Your task to perform on an android device: open chrome and create a bookmark for the current page Image 0: 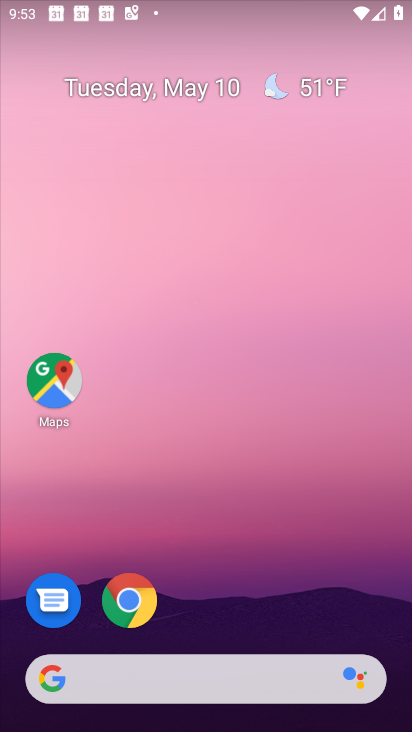
Step 0: click (129, 618)
Your task to perform on an android device: open chrome and create a bookmark for the current page Image 1: 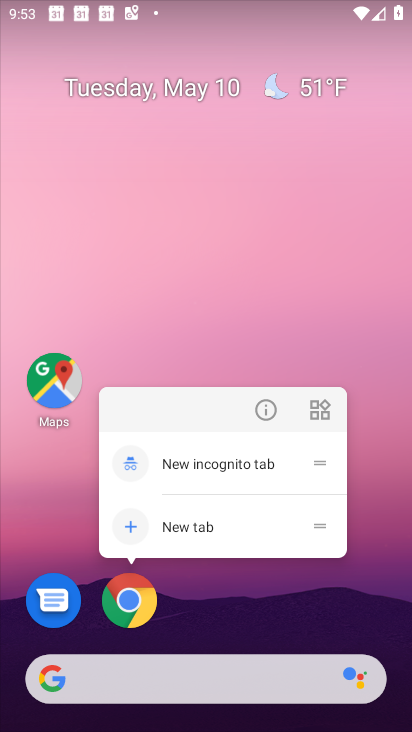
Step 1: click (130, 621)
Your task to perform on an android device: open chrome and create a bookmark for the current page Image 2: 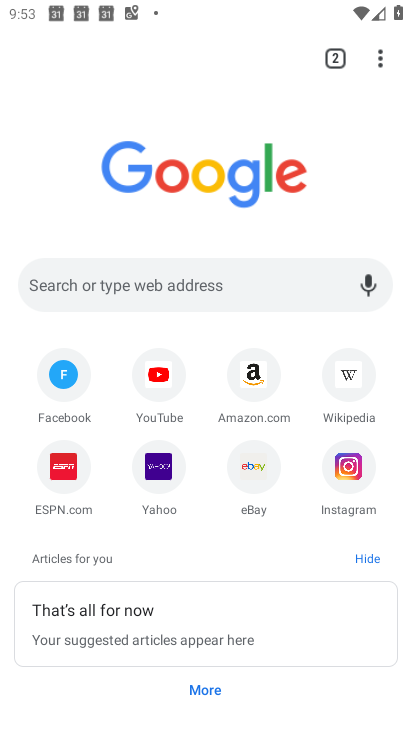
Step 2: click (384, 57)
Your task to perform on an android device: open chrome and create a bookmark for the current page Image 3: 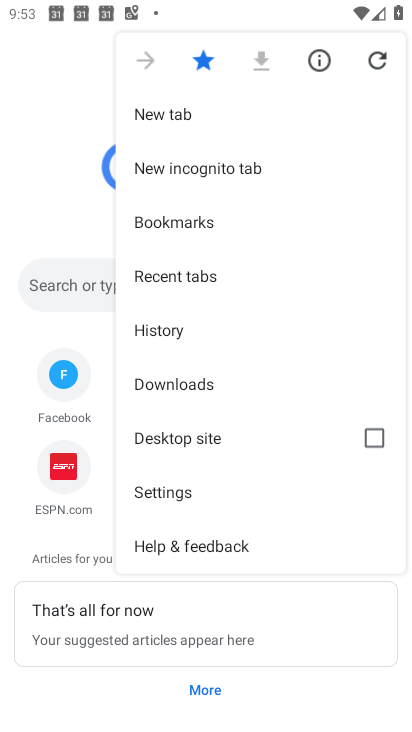
Step 3: click (46, 210)
Your task to perform on an android device: open chrome and create a bookmark for the current page Image 4: 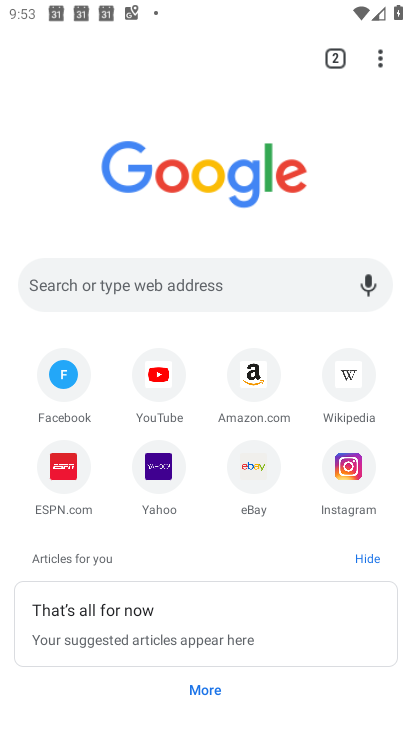
Step 4: task complete